Your task to perform on an android device: check storage Image 0: 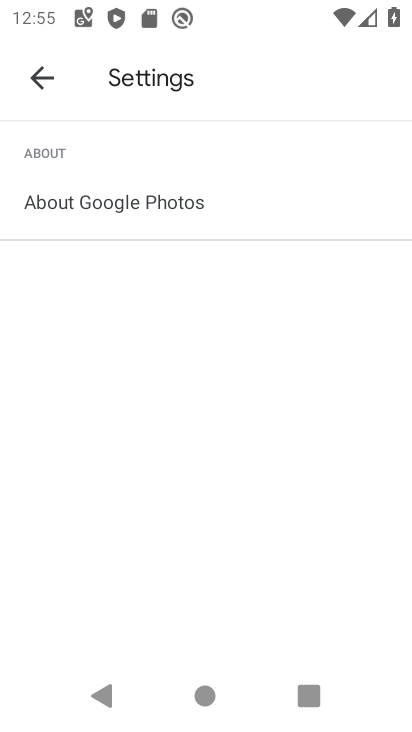
Step 0: press home button
Your task to perform on an android device: check storage Image 1: 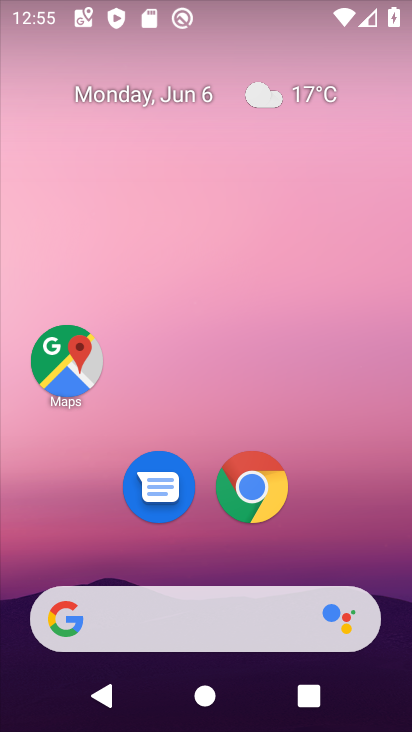
Step 1: drag from (129, 561) to (267, 5)
Your task to perform on an android device: check storage Image 2: 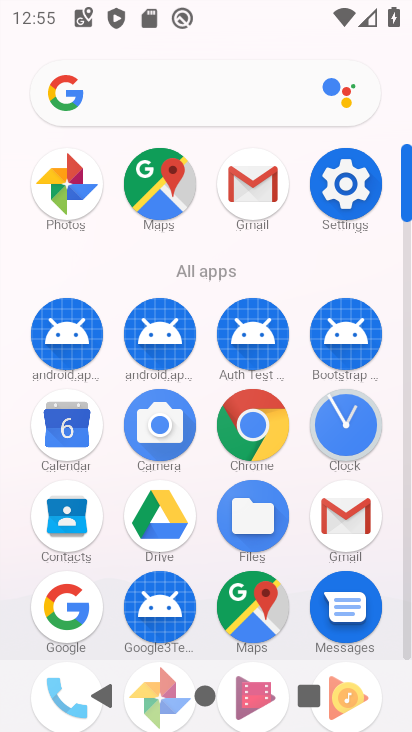
Step 2: drag from (220, 605) to (299, 233)
Your task to perform on an android device: check storage Image 3: 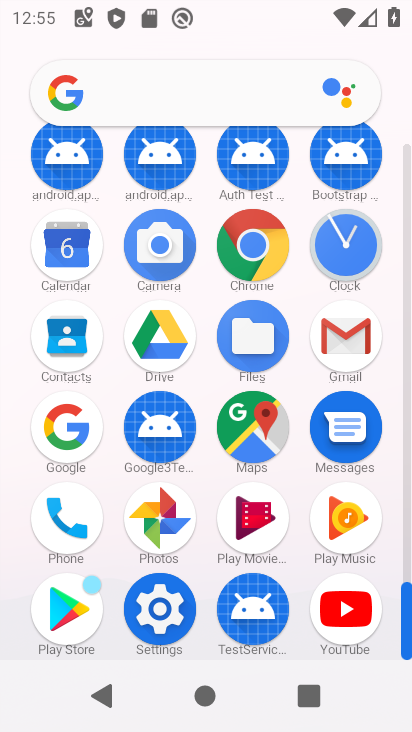
Step 3: click (150, 612)
Your task to perform on an android device: check storage Image 4: 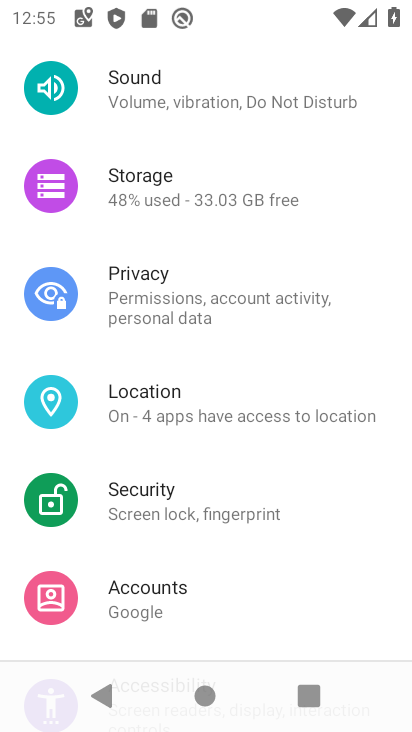
Step 4: click (195, 207)
Your task to perform on an android device: check storage Image 5: 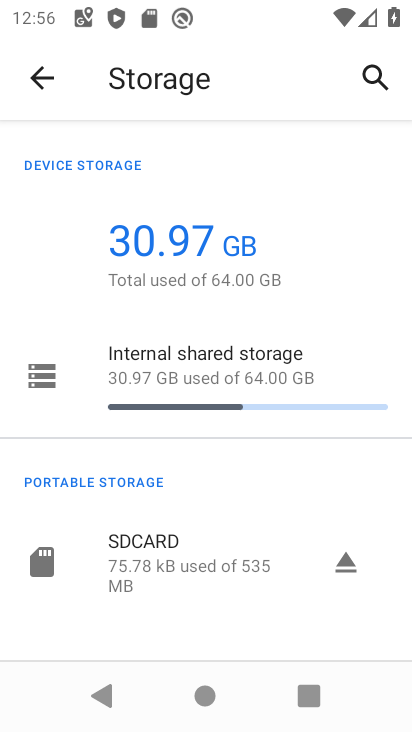
Step 5: task complete